Your task to perform on an android device: Open Google Image 0: 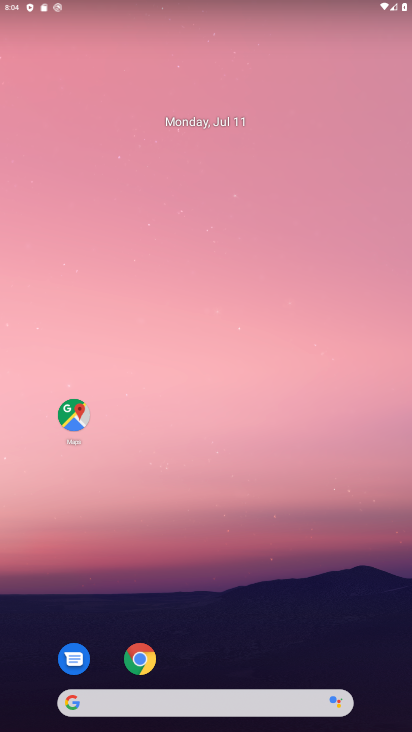
Step 0: click (156, 698)
Your task to perform on an android device: Open Google Image 1: 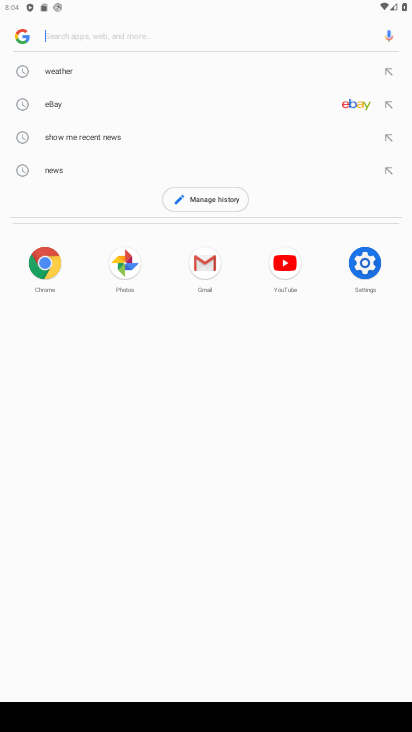
Step 1: task complete